Your task to perform on an android device: Open Android settings Image 0: 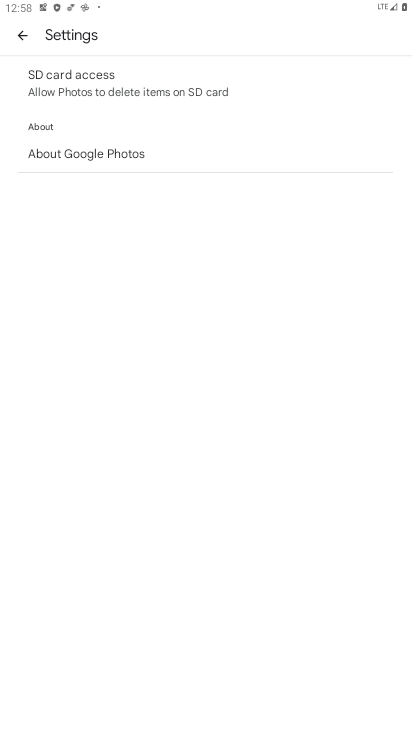
Step 0: press home button
Your task to perform on an android device: Open Android settings Image 1: 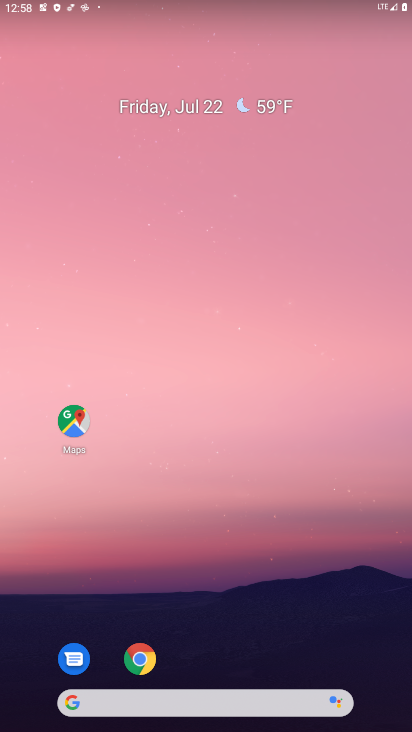
Step 1: drag from (253, 625) to (254, 129)
Your task to perform on an android device: Open Android settings Image 2: 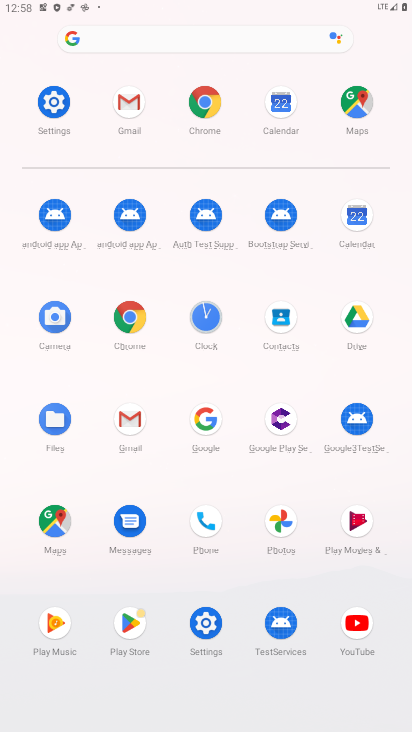
Step 2: click (47, 110)
Your task to perform on an android device: Open Android settings Image 3: 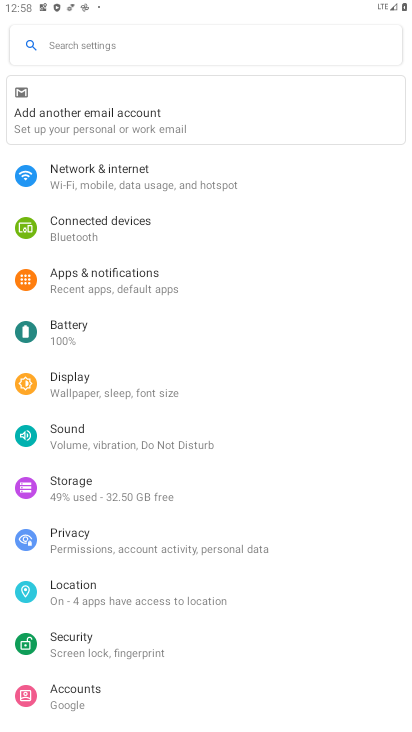
Step 3: task complete